Your task to perform on an android device: What's on my calendar tomorrow? Image 0: 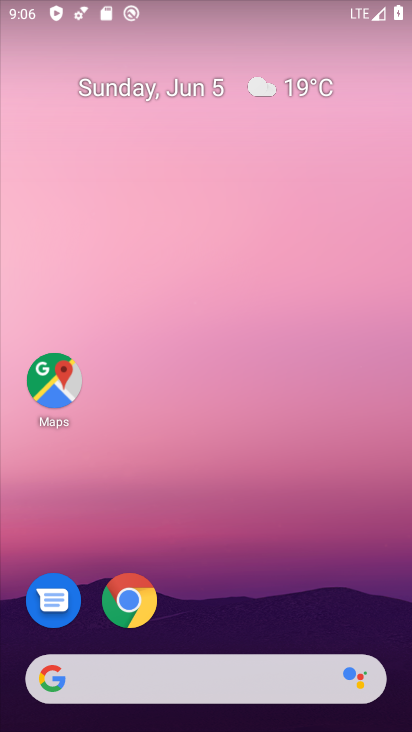
Step 0: drag from (232, 634) to (157, 287)
Your task to perform on an android device: What's on my calendar tomorrow? Image 1: 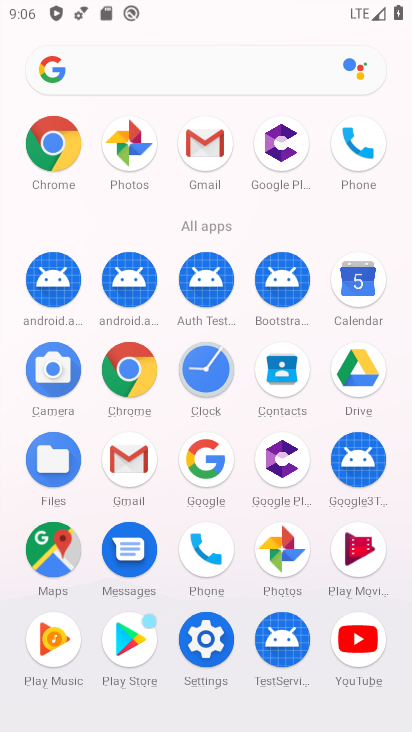
Step 1: click (350, 296)
Your task to perform on an android device: What's on my calendar tomorrow? Image 2: 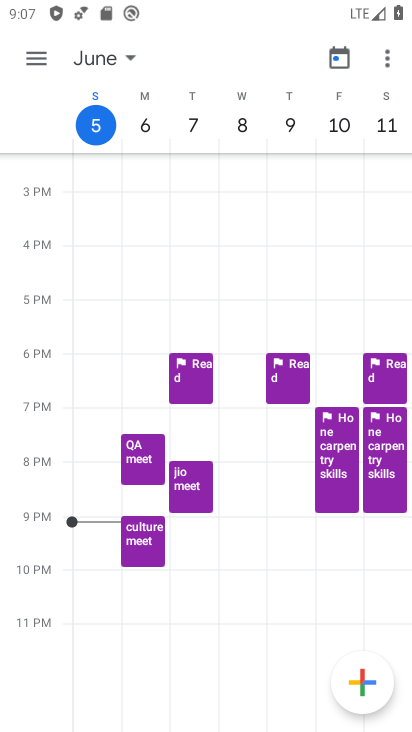
Step 2: click (42, 59)
Your task to perform on an android device: What's on my calendar tomorrow? Image 3: 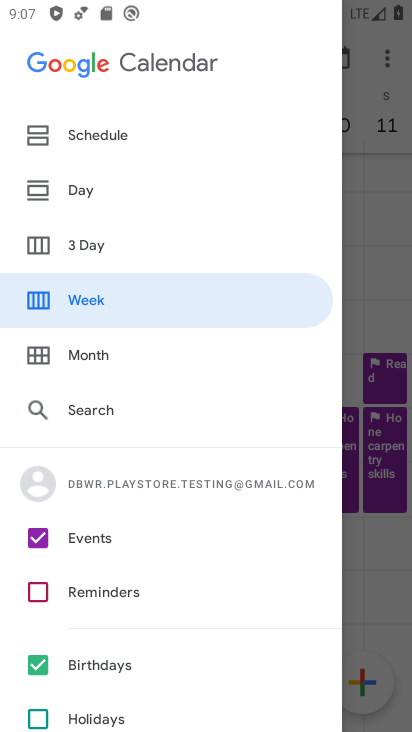
Step 3: click (81, 136)
Your task to perform on an android device: What's on my calendar tomorrow? Image 4: 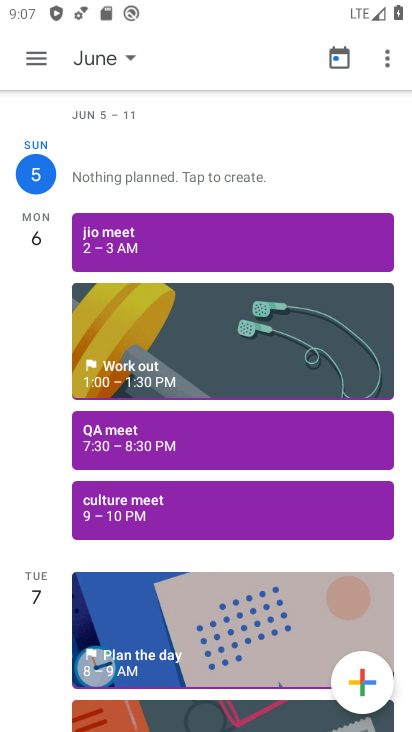
Step 4: task complete